Your task to perform on an android device: set the stopwatch Image 0: 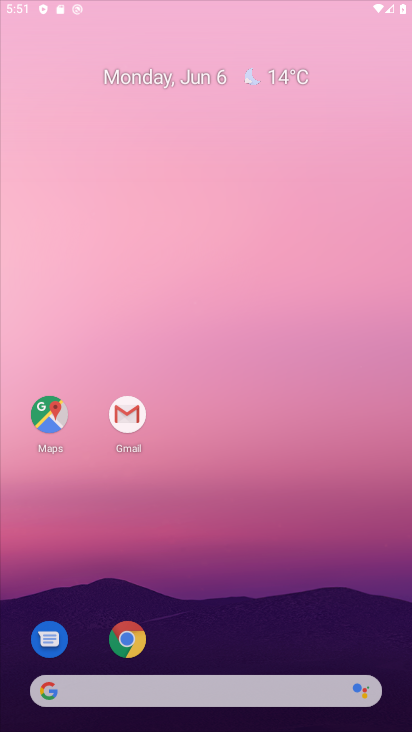
Step 0: drag from (243, 678) to (108, 45)
Your task to perform on an android device: set the stopwatch Image 1: 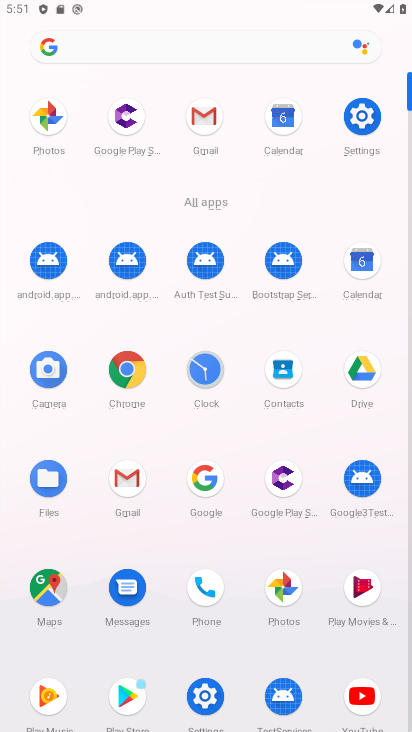
Step 1: click (208, 370)
Your task to perform on an android device: set the stopwatch Image 2: 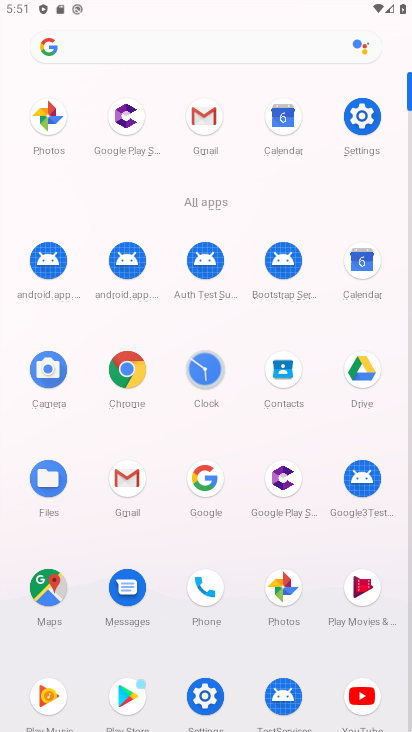
Step 2: click (208, 370)
Your task to perform on an android device: set the stopwatch Image 3: 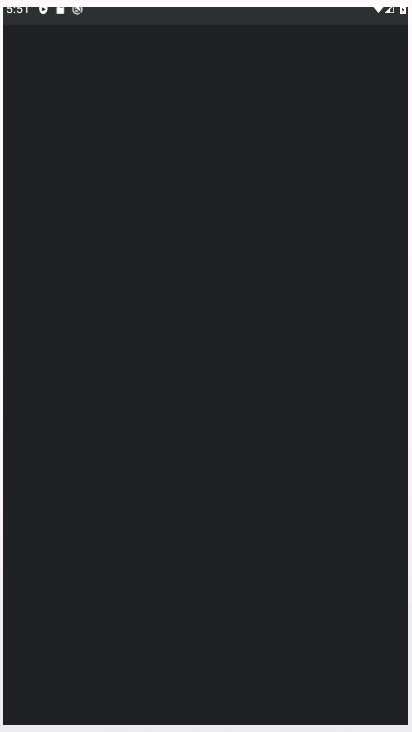
Step 3: click (208, 370)
Your task to perform on an android device: set the stopwatch Image 4: 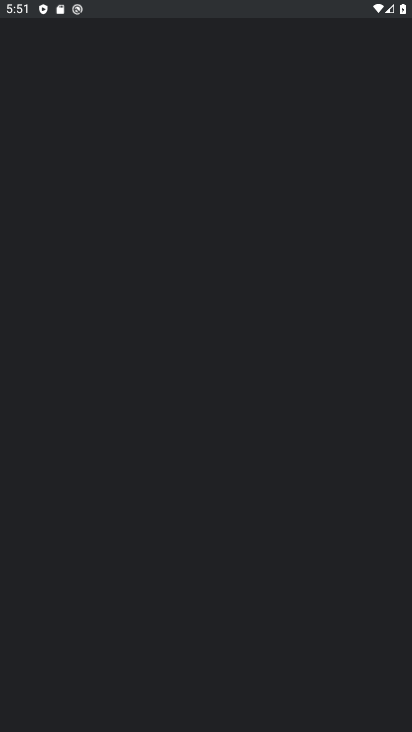
Step 4: click (208, 370)
Your task to perform on an android device: set the stopwatch Image 5: 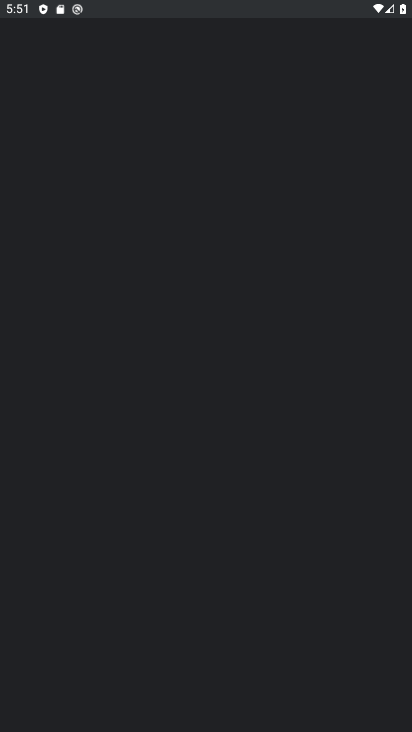
Step 5: click (208, 370)
Your task to perform on an android device: set the stopwatch Image 6: 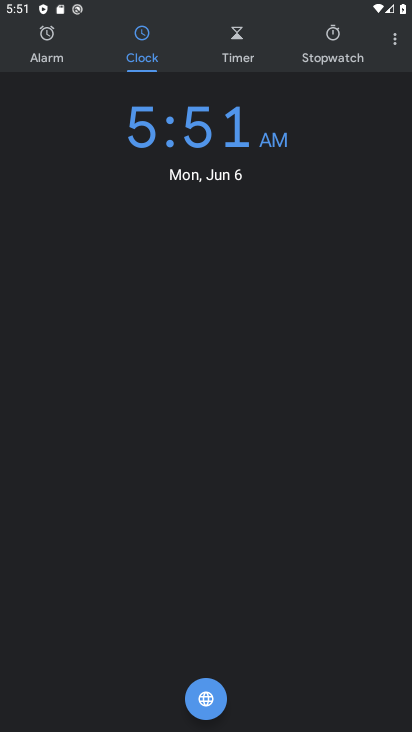
Step 6: click (347, 48)
Your task to perform on an android device: set the stopwatch Image 7: 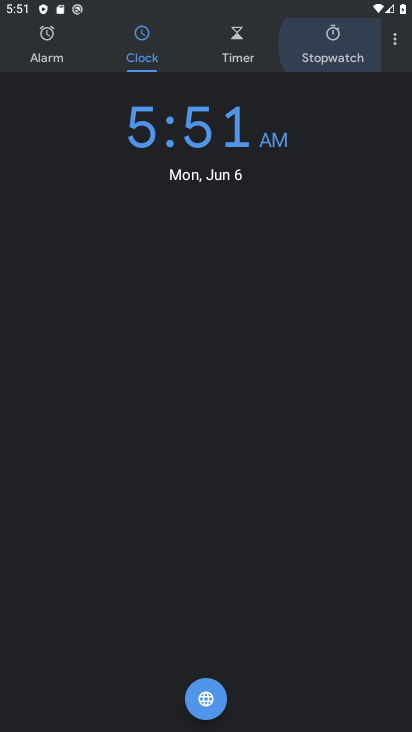
Step 7: click (341, 48)
Your task to perform on an android device: set the stopwatch Image 8: 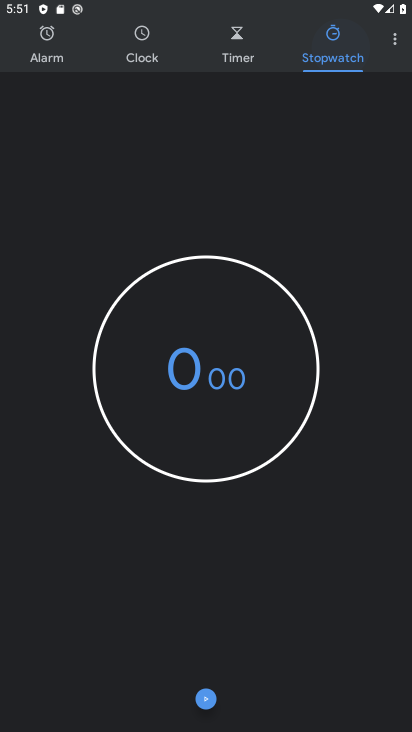
Step 8: click (341, 48)
Your task to perform on an android device: set the stopwatch Image 9: 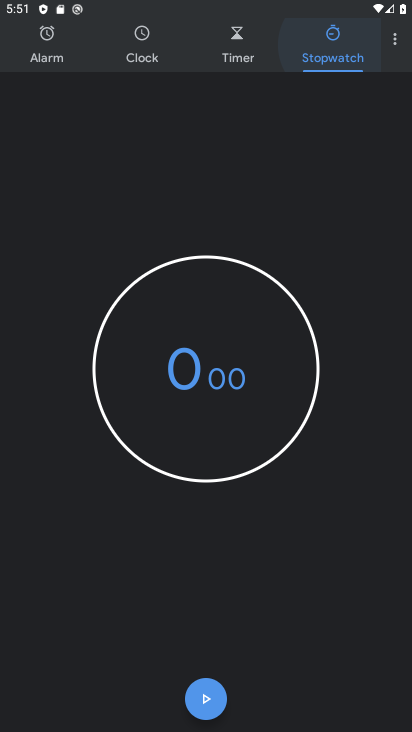
Step 9: click (342, 51)
Your task to perform on an android device: set the stopwatch Image 10: 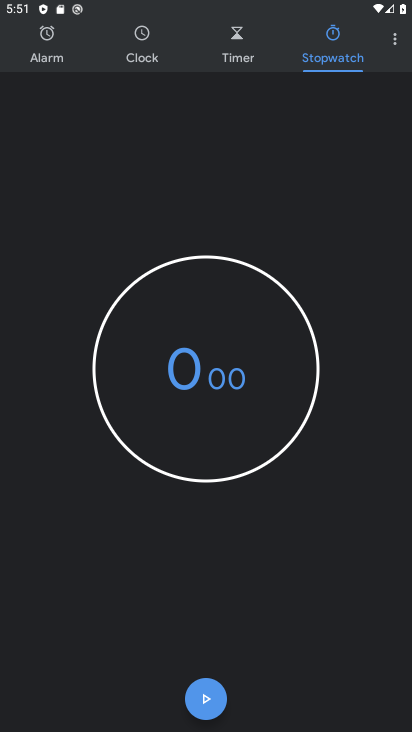
Step 10: click (206, 700)
Your task to perform on an android device: set the stopwatch Image 11: 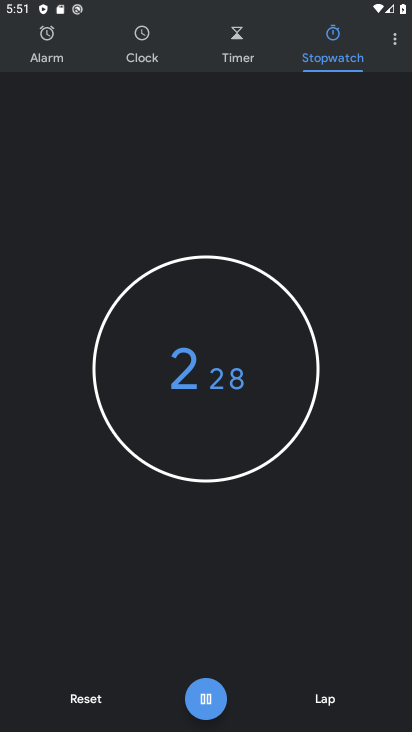
Step 11: click (208, 698)
Your task to perform on an android device: set the stopwatch Image 12: 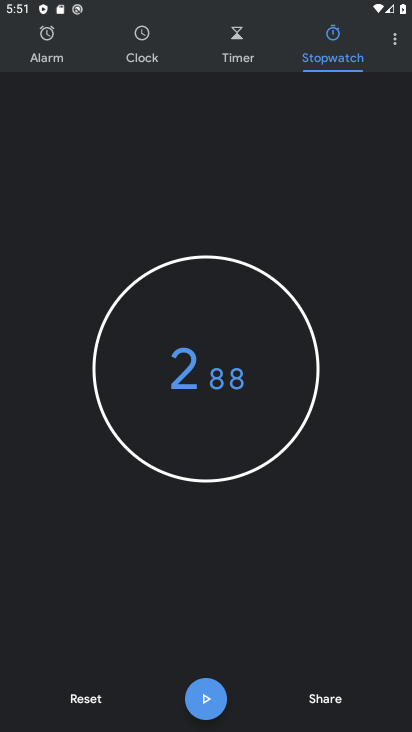
Step 12: task complete